Your task to perform on an android device: manage bookmarks in the chrome app Image 0: 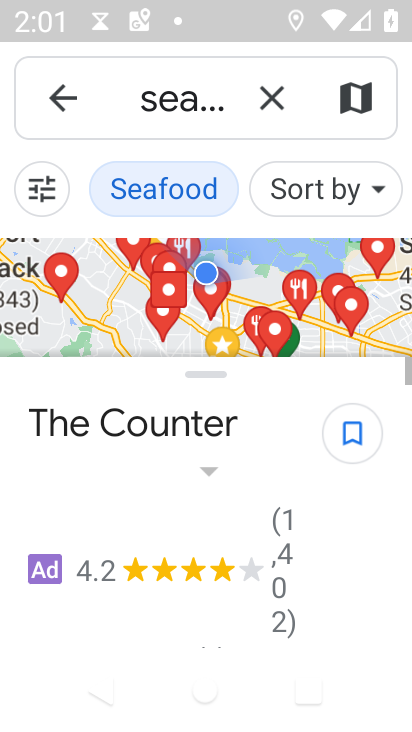
Step 0: press home button
Your task to perform on an android device: manage bookmarks in the chrome app Image 1: 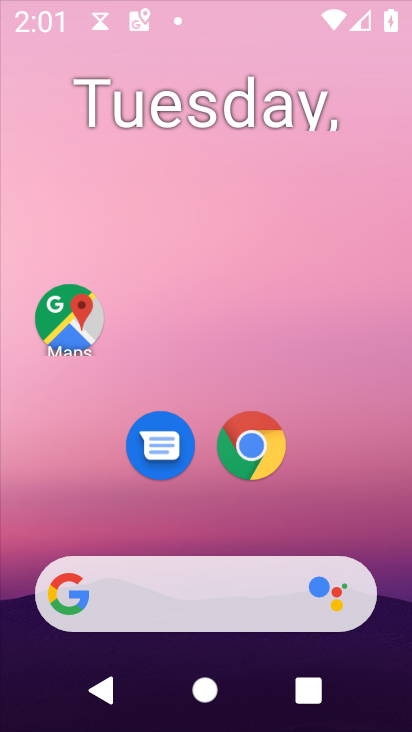
Step 1: drag from (367, 600) to (388, 24)
Your task to perform on an android device: manage bookmarks in the chrome app Image 2: 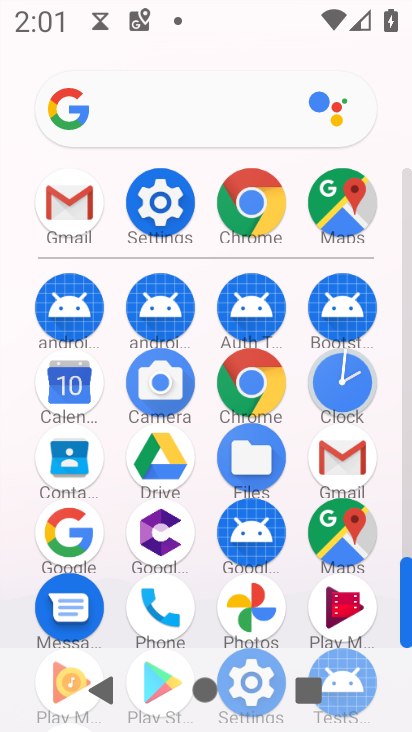
Step 2: click (243, 395)
Your task to perform on an android device: manage bookmarks in the chrome app Image 3: 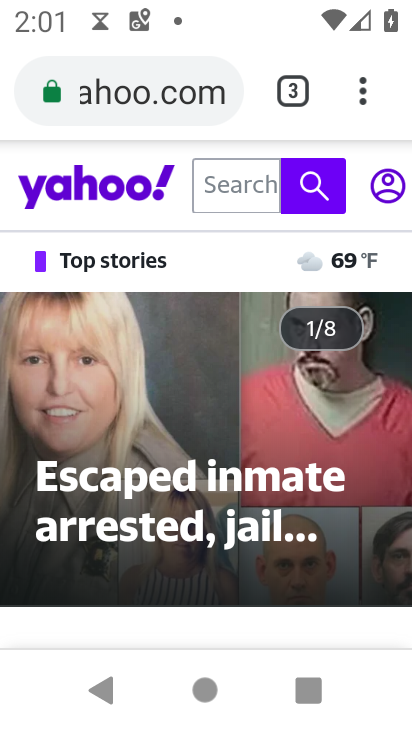
Step 3: task complete